Your task to perform on an android device: check android version Image 0: 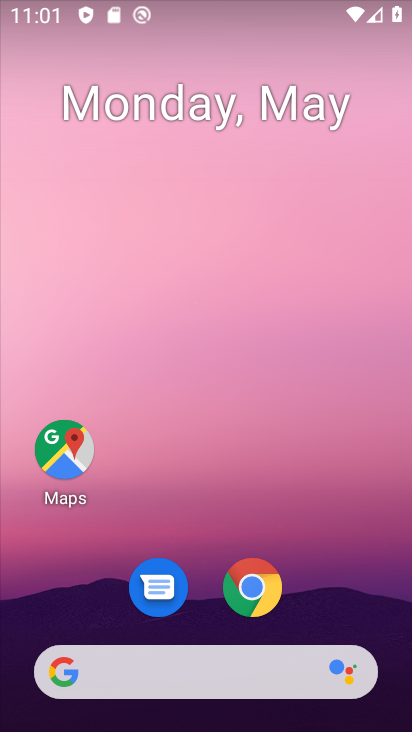
Step 0: click (325, 389)
Your task to perform on an android device: check android version Image 1: 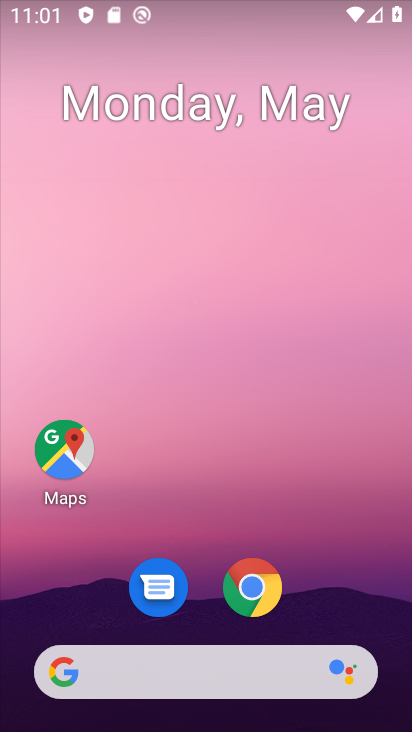
Step 1: drag from (365, 626) to (246, 26)
Your task to perform on an android device: check android version Image 2: 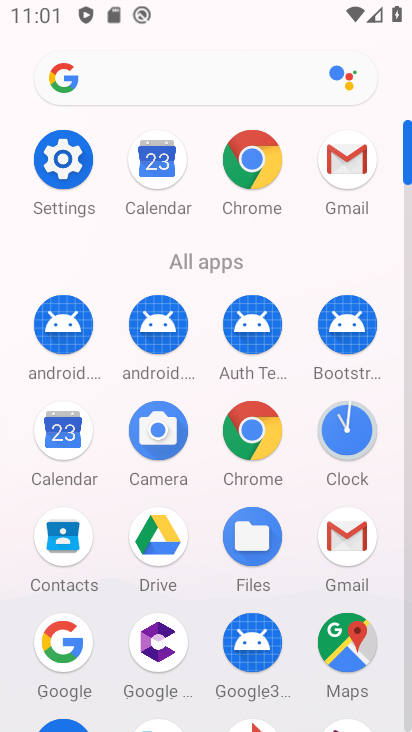
Step 2: click (65, 172)
Your task to perform on an android device: check android version Image 3: 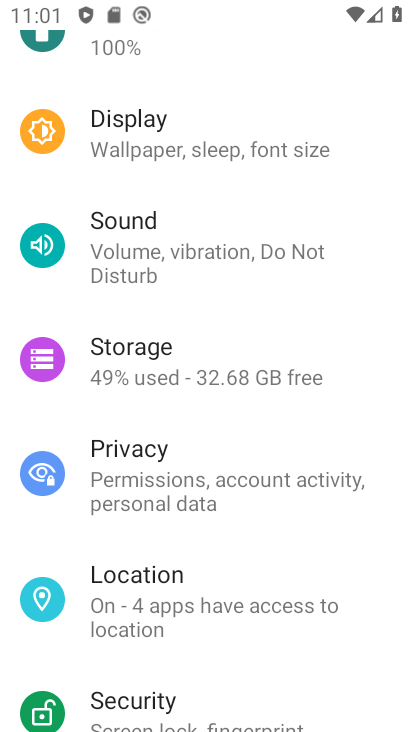
Step 3: drag from (172, 634) to (172, 161)
Your task to perform on an android device: check android version Image 4: 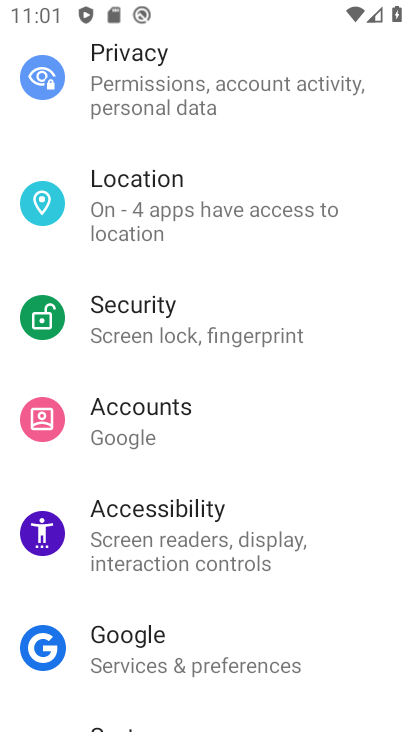
Step 4: drag from (224, 615) to (214, 151)
Your task to perform on an android device: check android version Image 5: 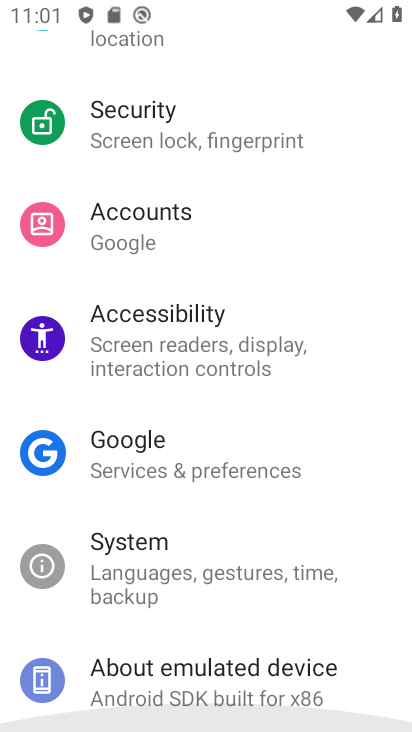
Step 5: drag from (182, 371) to (189, 150)
Your task to perform on an android device: check android version Image 6: 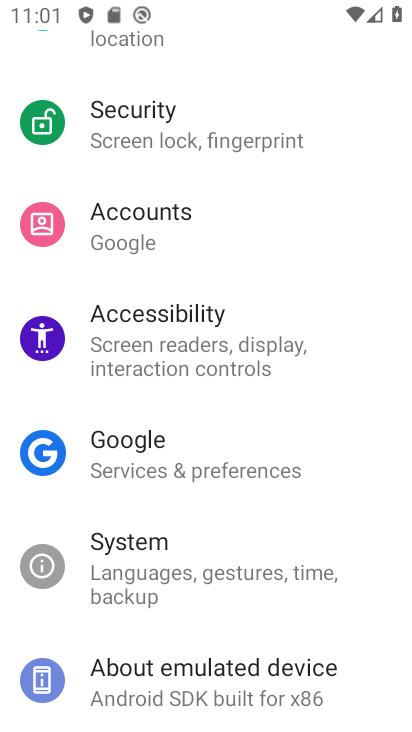
Step 6: drag from (222, 535) to (285, 187)
Your task to perform on an android device: check android version Image 7: 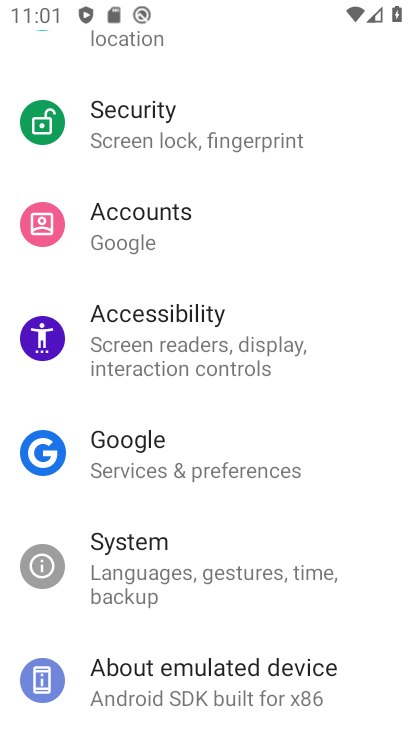
Step 7: click (137, 695)
Your task to perform on an android device: check android version Image 8: 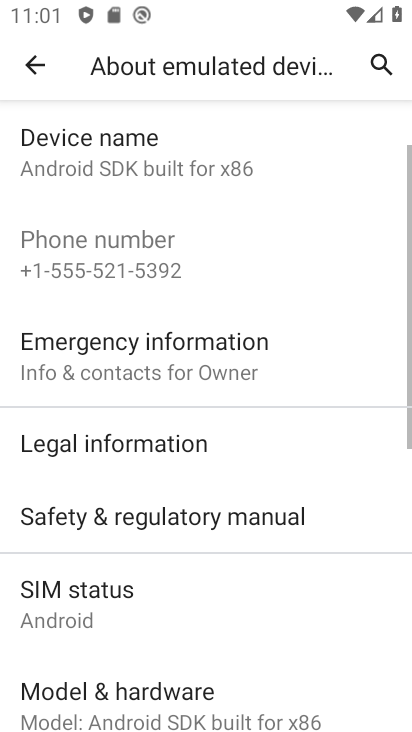
Step 8: task complete